Your task to perform on an android device: What's the weather? Image 0: 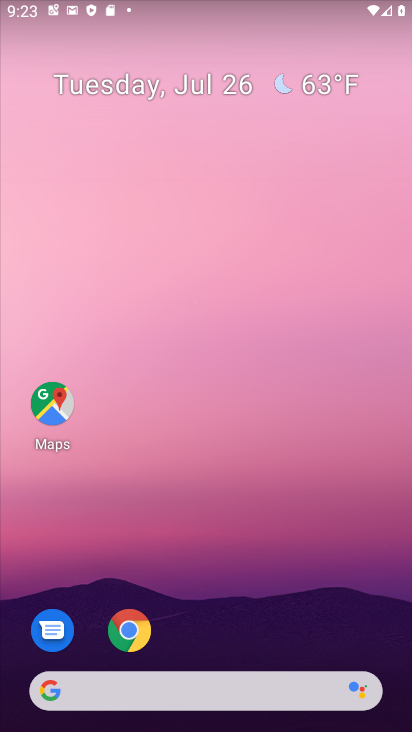
Step 0: click (323, 80)
Your task to perform on an android device: What's the weather? Image 1: 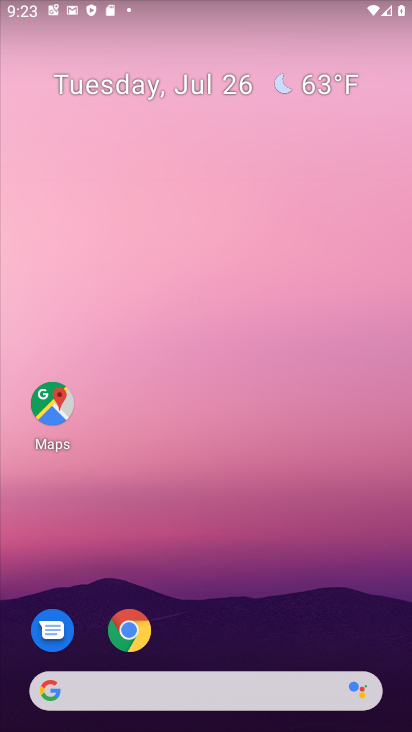
Step 1: click (327, 81)
Your task to perform on an android device: What's the weather? Image 2: 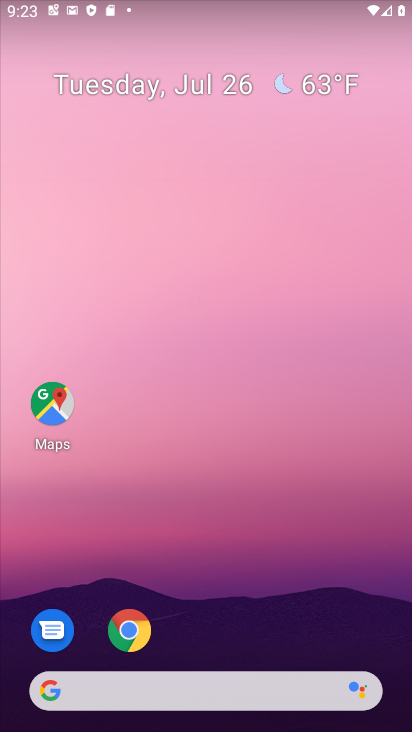
Step 2: drag from (9, 301) to (390, 274)
Your task to perform on an android device: What's the weather? Image 3: 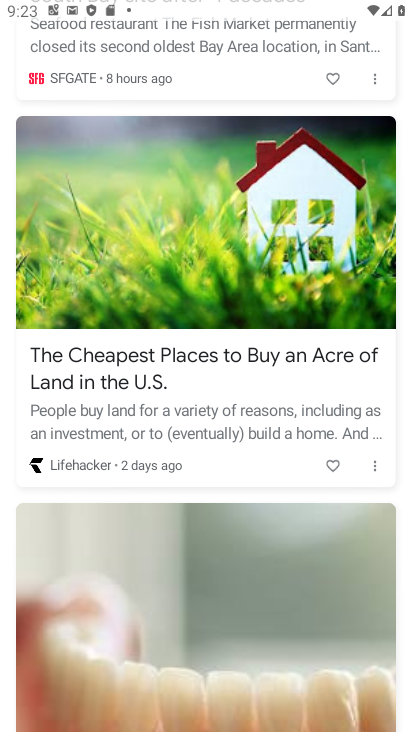
Step 3: drag from (187, 186) to (201, 714)
Your task to perform on an android device: What's the weather? Image 4: 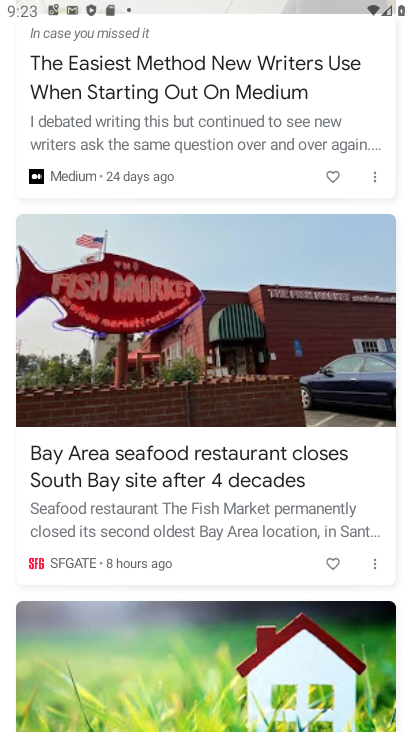
Step 4: drag from (203, 76) to (224, 491)
Your task to perform on an android device: What's the weather? Image 5: 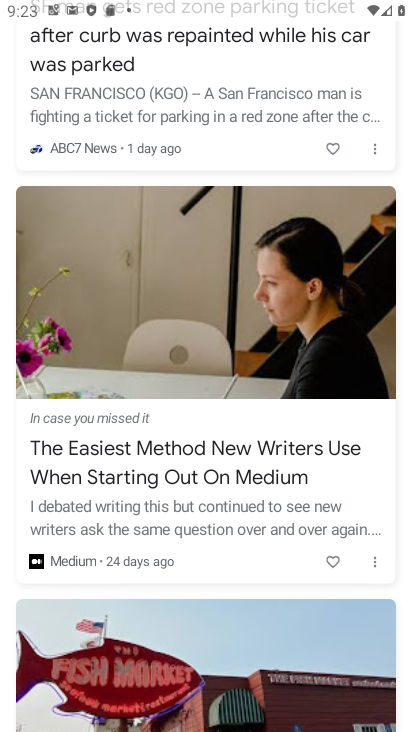
Step 5: drag from (201, 44) to (215, 532)
Your task to perform on an android device: What's the weather? Image 6: 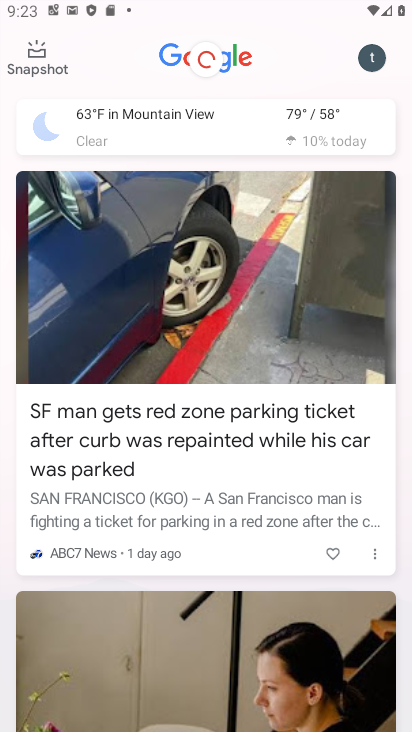
Step 6: click (321, 116)
Your task to perform on an android device: What's the weather? Image 7: 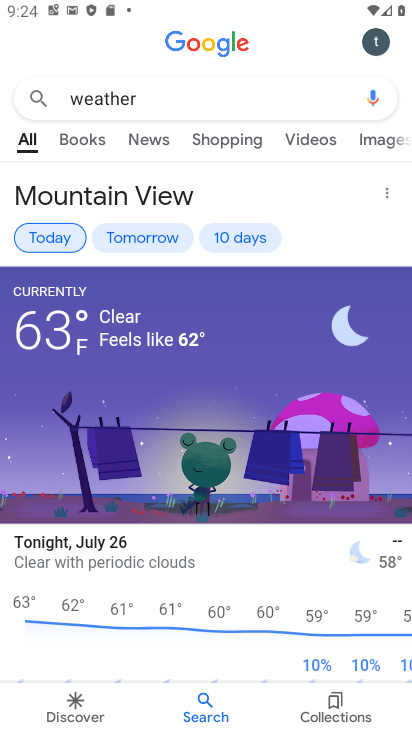
Step 7: task complete